Your task to perform on an android device: Go to Maps Image 0: 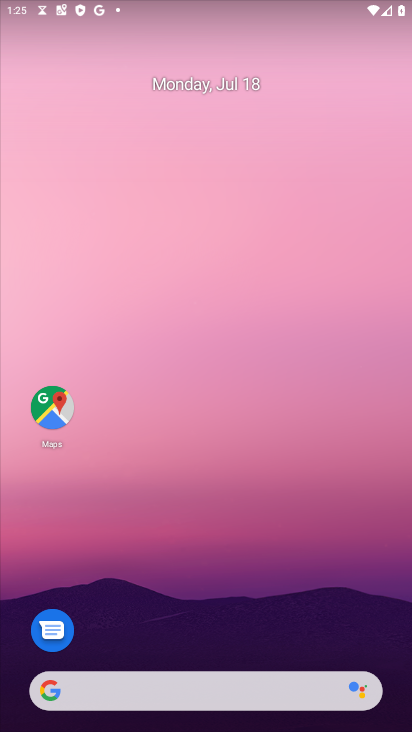
Step 0: drag from (278, 688) to (352, 13)
Your task to perform on an android device: Go to Maps Image 1: 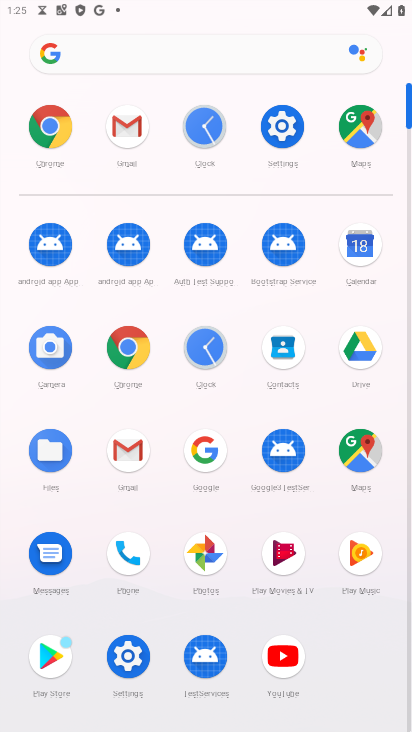
Step 1: click (363, 450)
Your task to perform on an android device: Go to Maps Image 2: 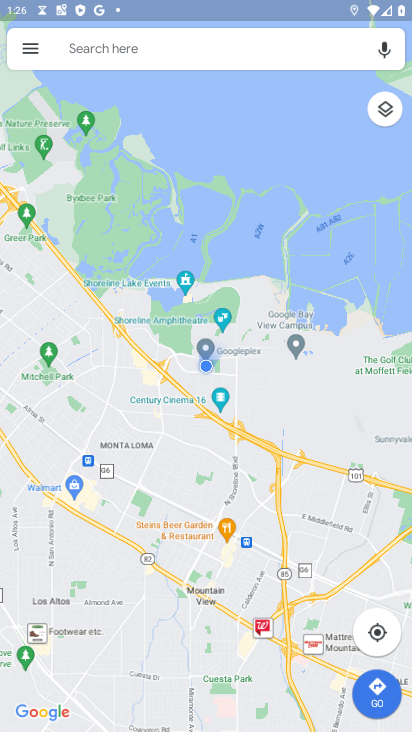
Step 2: task complete